Your task to perform on an android device: Go to Yahoo.com Image 0: 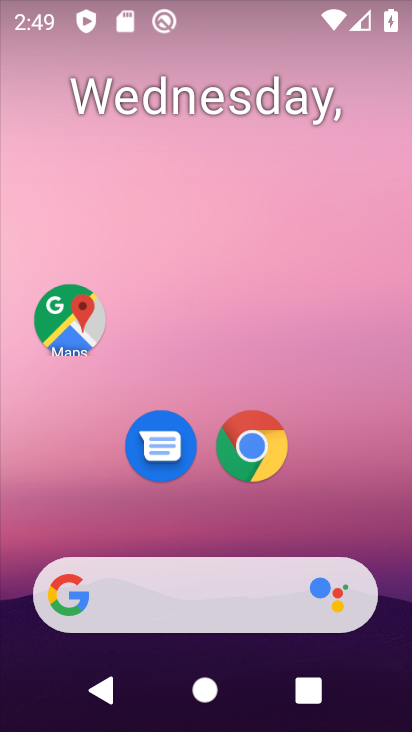
Step 0: click (281, 447)
Your task to perform on an android device: Go to Yahoo.com Image 1: 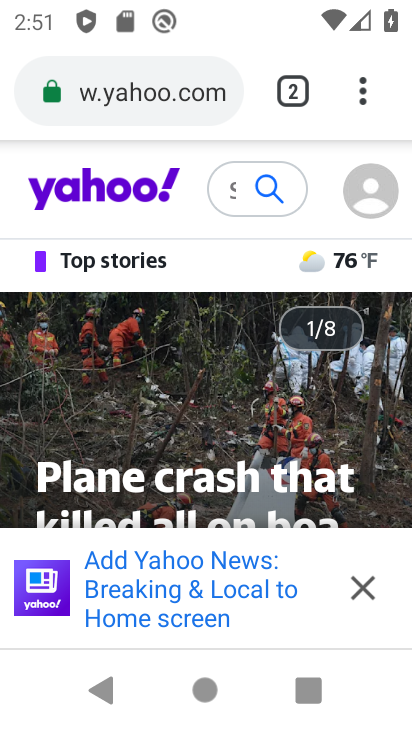
Step 1: task complete